Your task to perform on an android device: Go to accessibility settings Image 0: 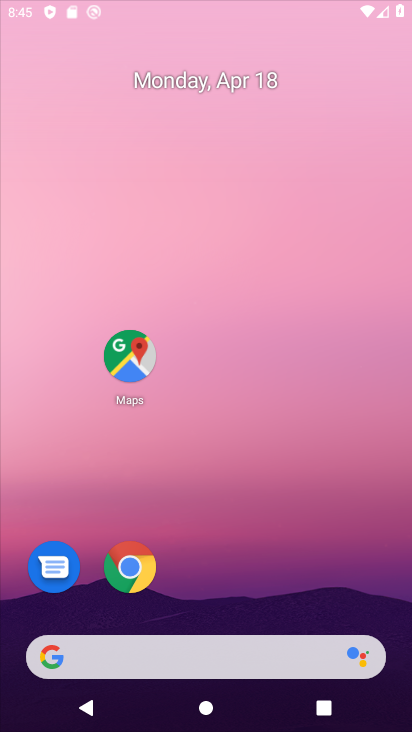
Step 0: click (290, 321)
Your task to perform on an android device: Go to accessibility settings Image 1: 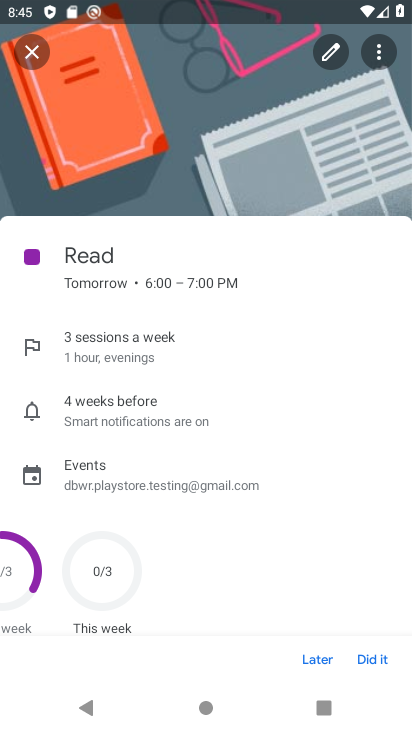
Step 1: press home button
Your task to perform on an android device: Go to accessibility settings Image 2: 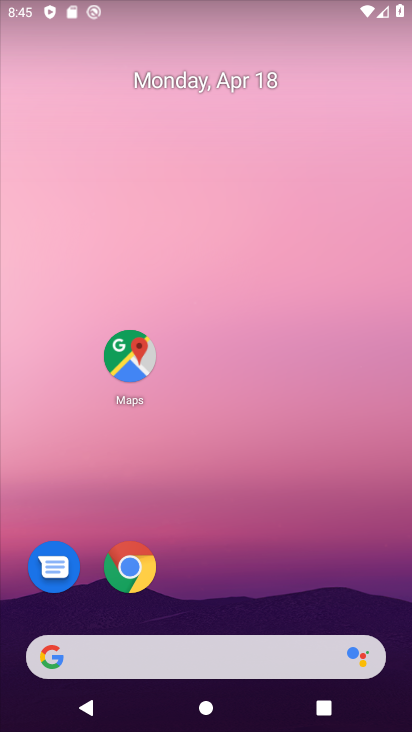
Step 2: drag from (249, 685) to (201, 120)
Your task to perform on an android device: Go to accessibility settings Image 3: 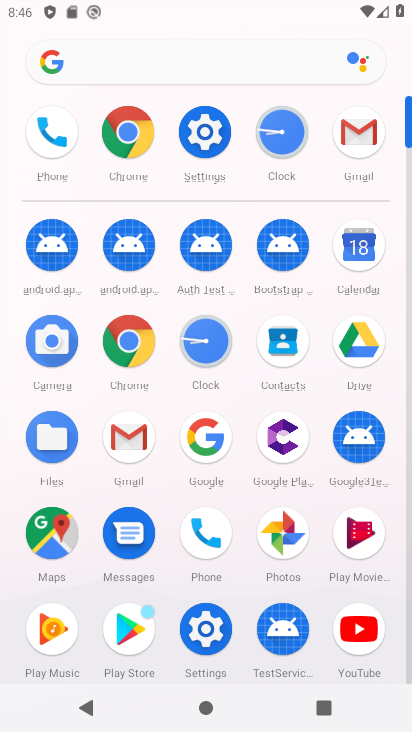
Step 3: click (201, 607)
Your task to perform on an android device: Go to accessibility settings Image 4: 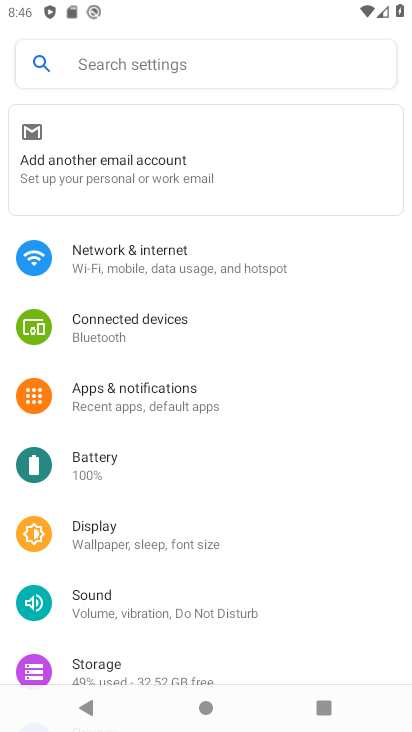
Step 4: click (131, 64)
Your task to perform on an android device: Go to accessibility settings Image 5: 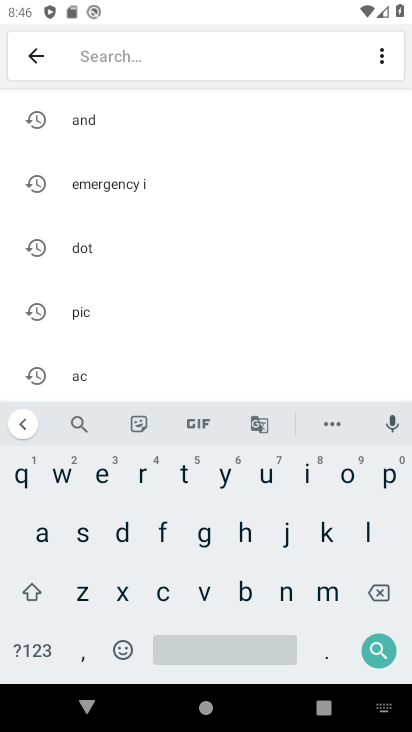
Step 5: click (84, 381)
Your task to perform on an android device: Go to accessibility settings Image 6: 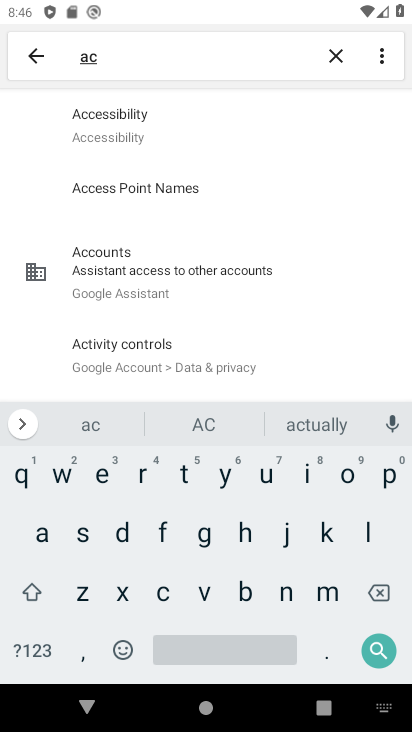
Step 6: click (142, 136)
Your task to perform on an android device: Go to accessibility settings Image 7: 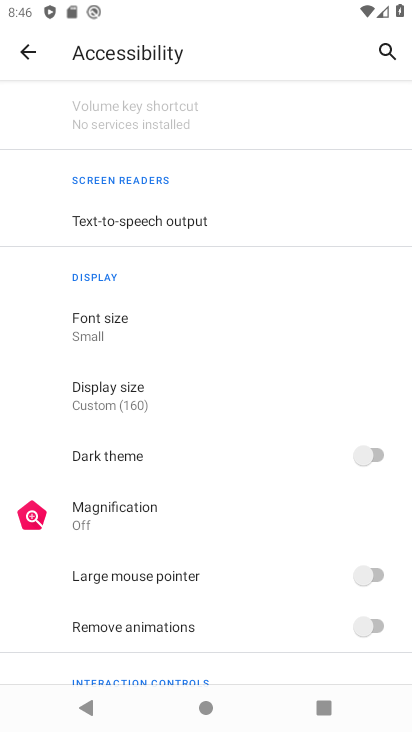
Step 7: task complete